Your task to perform on an android device: What's on my calendar tomorrow? Image 0: 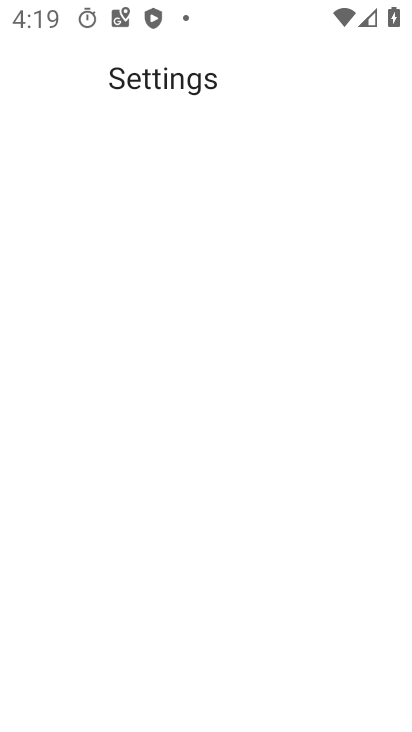
Step 0: click (243, 552)
Your task to perform on an android device: What's on my calendar tomorrow? Image 1: 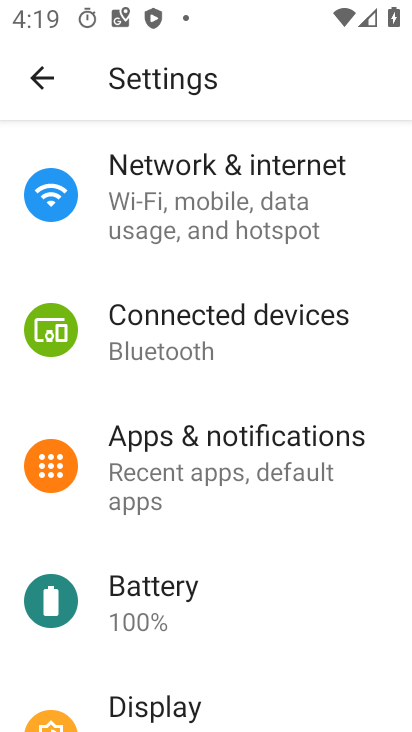
Step 1: press home button
Your task to perform on an android device: What's on my calendar tomorrow? Image 2: 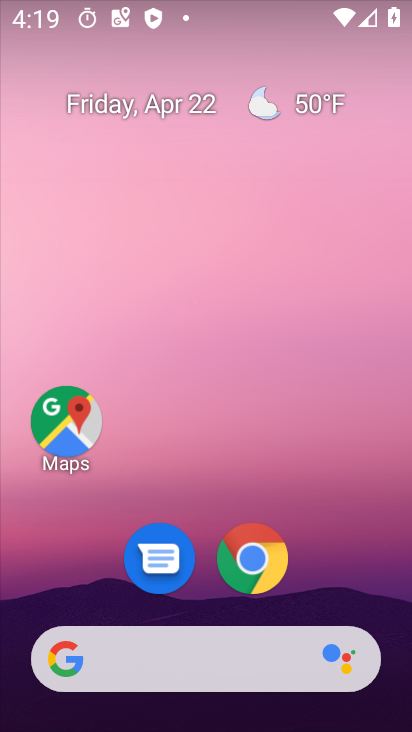
Step 2: click (259, 567)
Your task to perform on an android device: What's on my calendar tomorrow? Image 3: 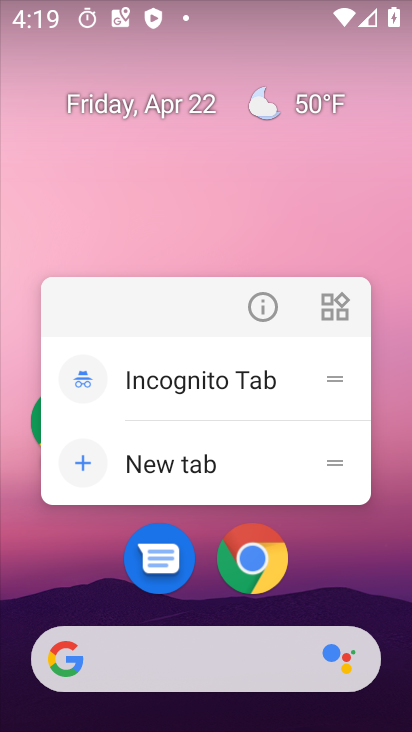
Step 3: click (256, 569)
Your task to perform on an android device: What's on my calendar tomorrow? Image 4: 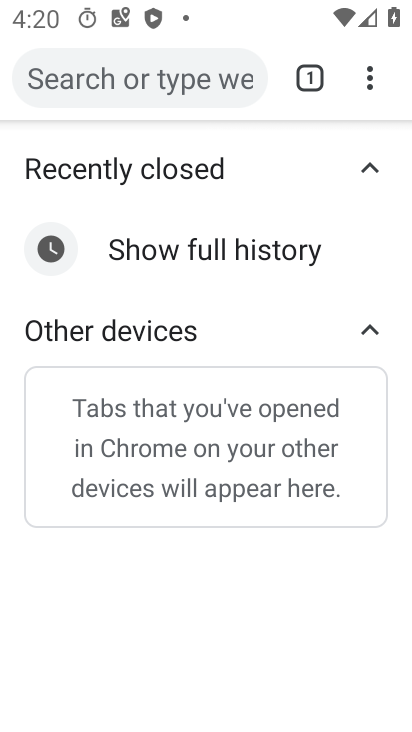
Step 4: press home button
Your task to perform on an android device: What's on my calendar tomorrow? Image 5: 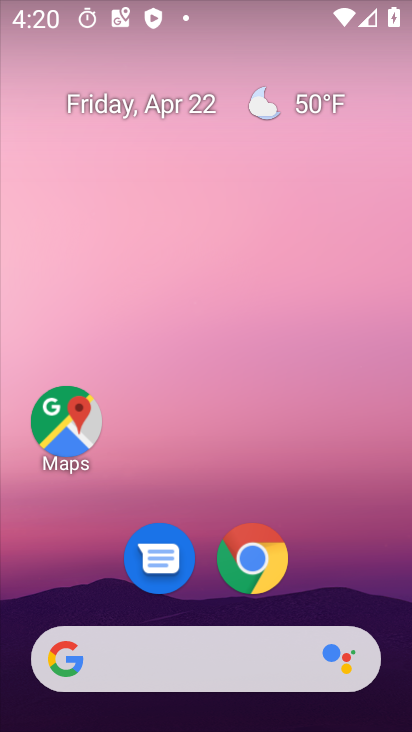
Step 5: drag from (329, 583) to (296, 152)
Your task to perform on an android device: What's on my calendar tomorrow? Image 6: 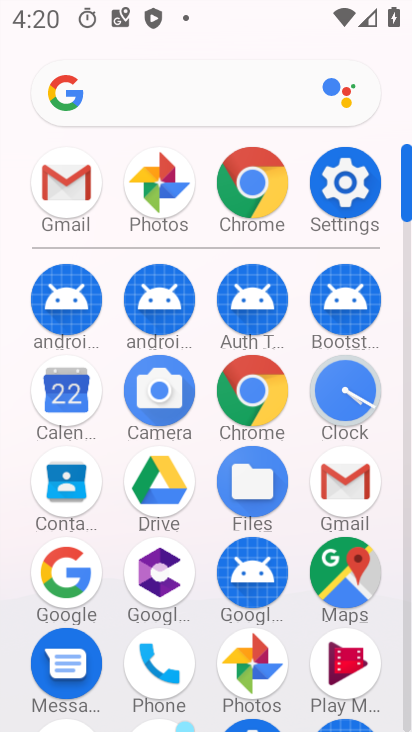
Step 6: drag from (292, 672) to (284, 349)
Your task to perform on an android device: What's on my calendar tomorrow? Image 7: 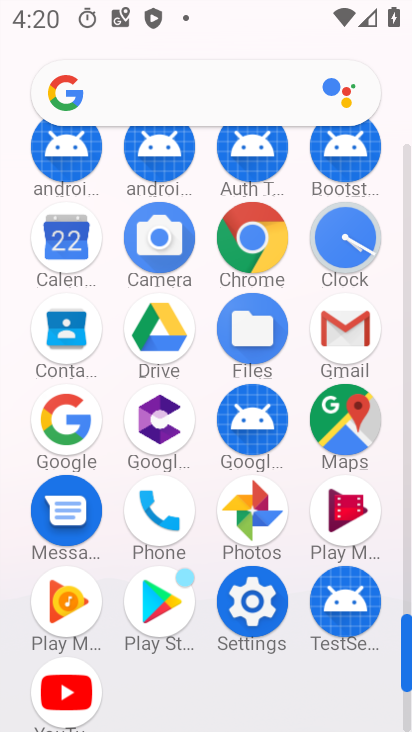
Step 7: click (68, 274)
Your task to perform on an android device: What's on my calendar tomorrow? Image 8: 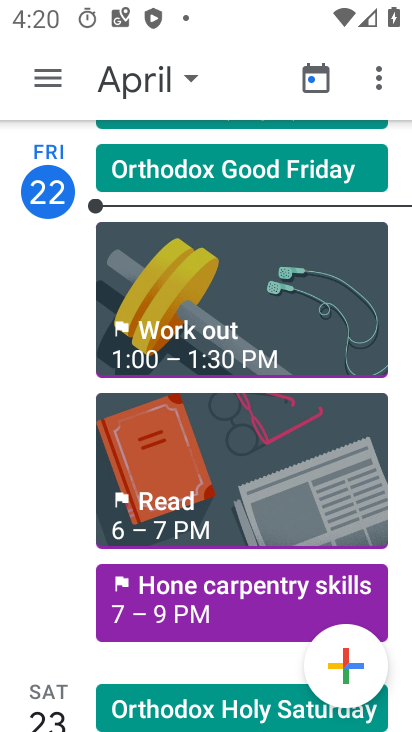
Step 8: click (57, 77)
Your task to perform on an android device: What's on my calendar tomorrow? Image 9: 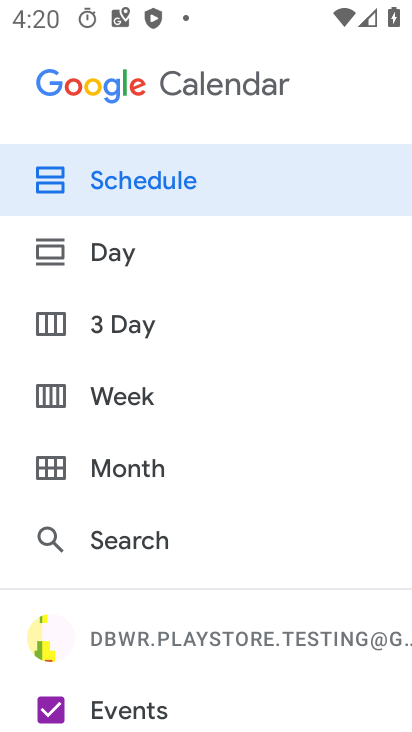
Step 9: click (126, 256)
Your task to perform on an android device: What's on my calendar tomorrow? Image 10: 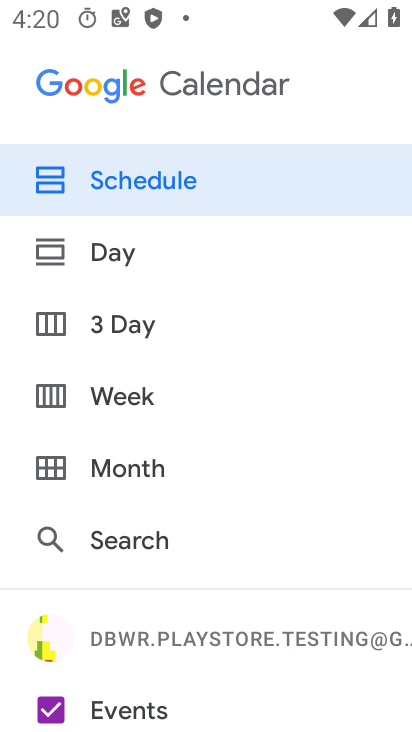
Step 10: click (127, 257)
Your task to perform on an android device: What's on my calendar tomorrow? Image 11: 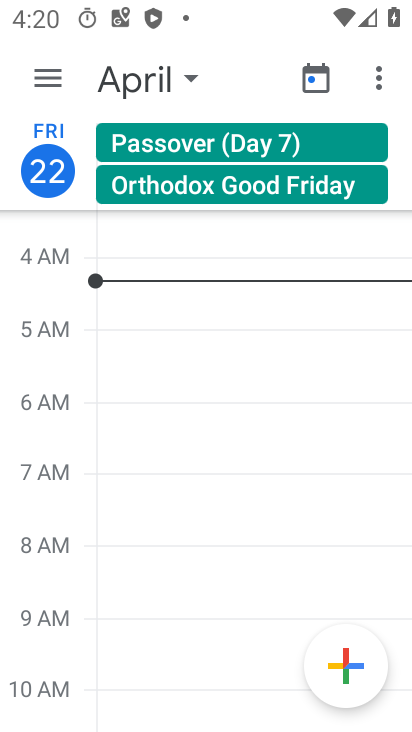
Step 11: click (141, 90)
Your task to perform on an android device: What's on my calendar tomorrow? Image 12: 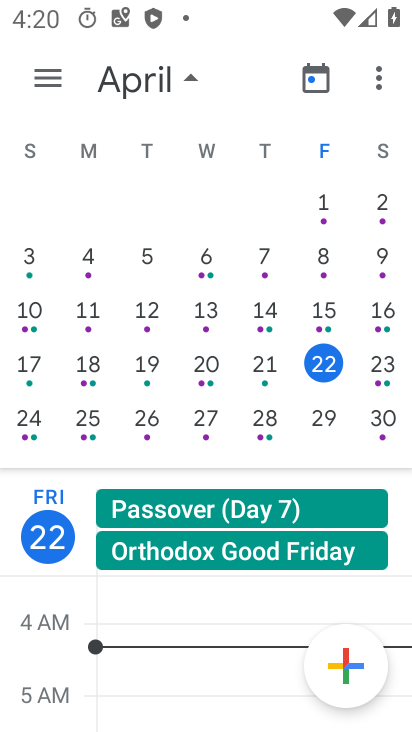
Step 12: click (387, 368)
Your task to perform on an android device: What's on my calendar tomorrow? Image 13: 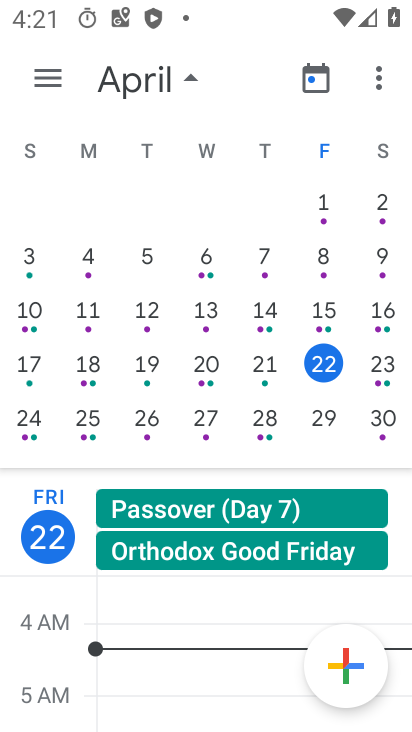
Step 13: click (387, 368)
Your task to perform on an android device: What's on my calendar tomorrow? Image 14: 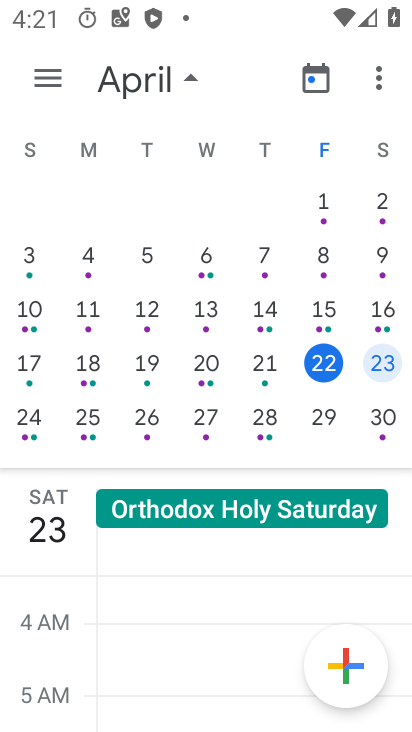
Step 14: task complete